Your task to perform on an android device: Open Youtube and go to "Your channel" Image 0: 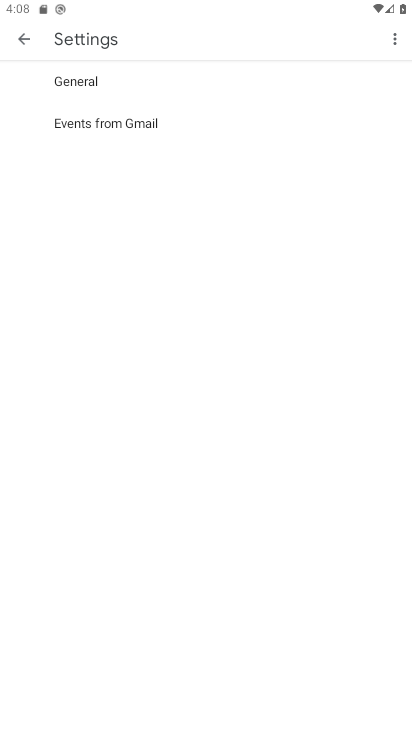
Step 0: press back button
Your task to perform on an android device: Open Youtube and go to "Your channel" Image 1: 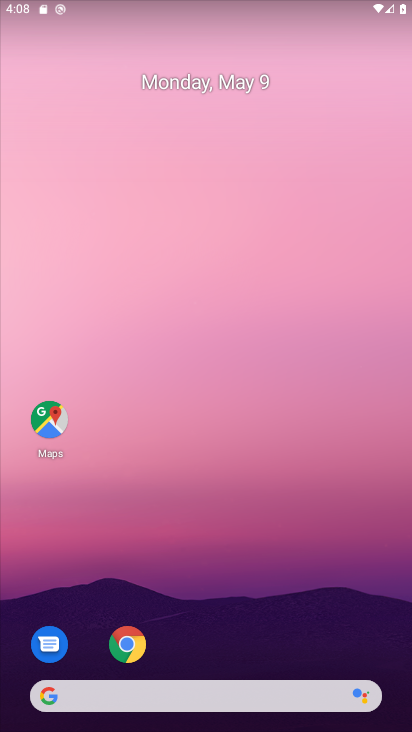
Step 1: drag from (230, 539) to (247, 41)
Your task to perform on an android device: Open Youtube and go to "Your channel" Image 2: 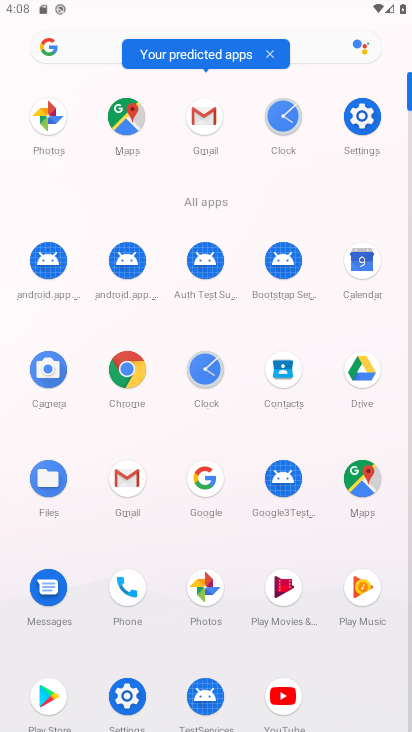
Step 2: click (279, 694)
Your task to perform on an android device: Open Youtube and go to "Your channel" Image 3: 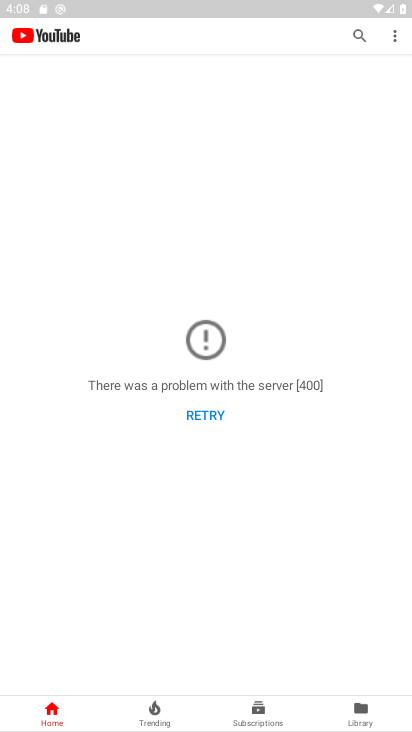
Step 3: click (215, 420)
Your task to perform on an android device: Open Youtube and go to "Your channel" Image 4: 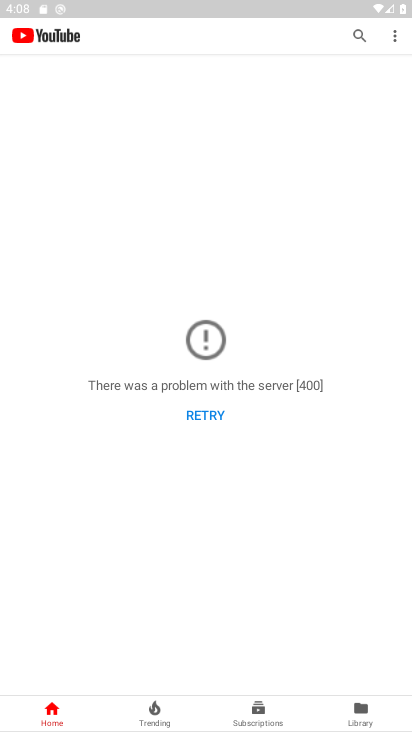
Step 4: click (213, 415)
Your task to perform on an android device: Open Youtube and go to "Your channel" Image 5: 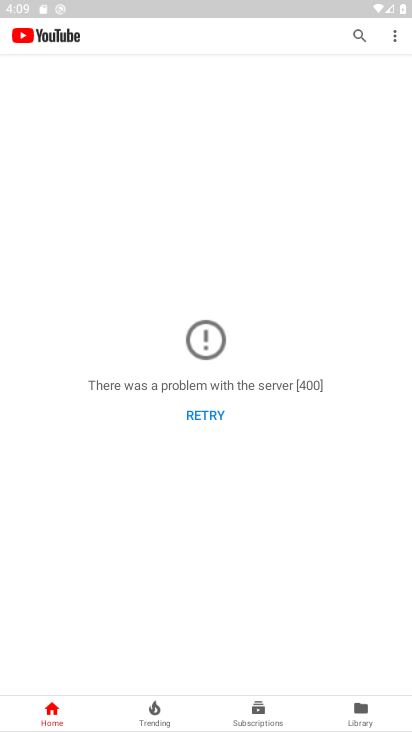
Step 5: click (213, 415)
Your task to perform on an android device: Open Youtube and go to "Your channel" Image 6: 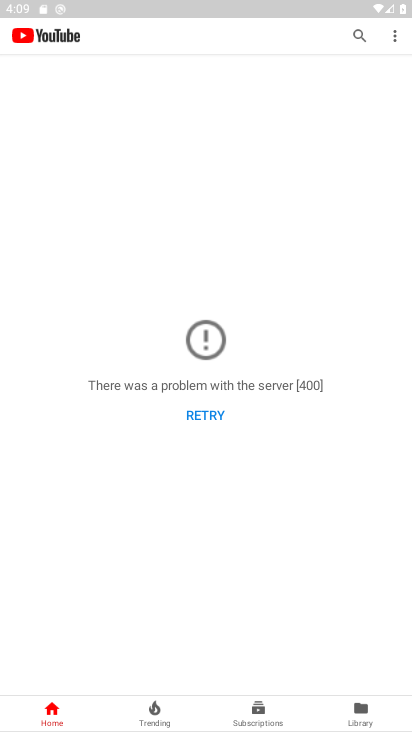
Step 6: click (397, 39)
Your task to perform on an android device: Open Youtube and go to "Your channel" Image 7: 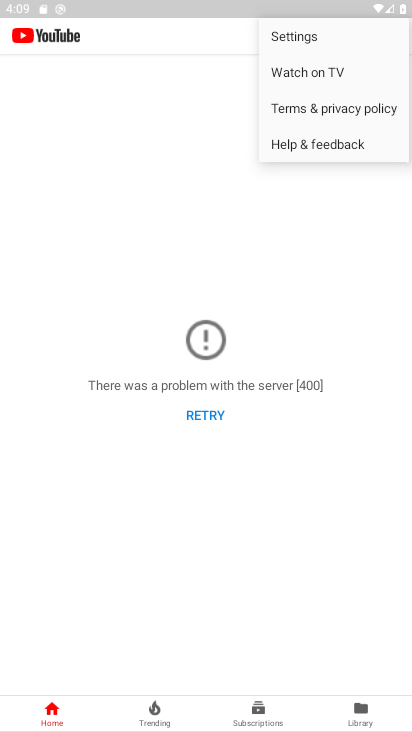
Step 7: click (303, 228)
Your task to perform on an android device: Open Youtube and go to "Your channel" Image 8: 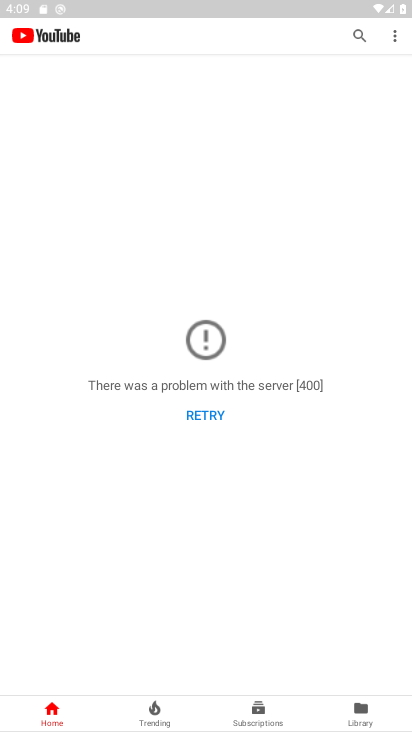
Step 8: task complete